Your task to perform on an android device: Show me popular videos on Youtube Image 0: 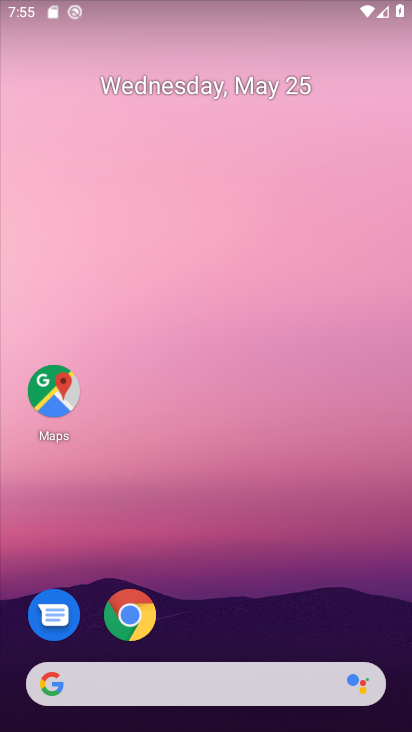
Step 0: drag from (243, 562) to (226, 21)
Your task to perform on an android device: Show me popular videos on Youtube Image 1: 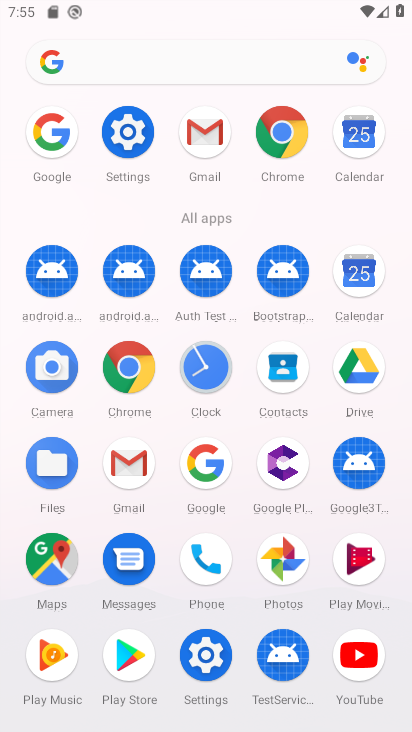
Step 1: click (360, 651)
Your task to perform on an android device: Show me popular videos on Youtube Image 2: 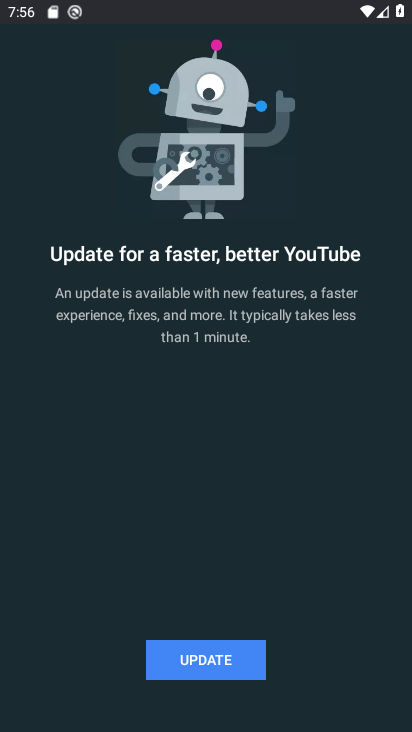
Step 2: click (198, 660)
Your task to perform on an android device: Show me popular videos on Youtube Image 3: 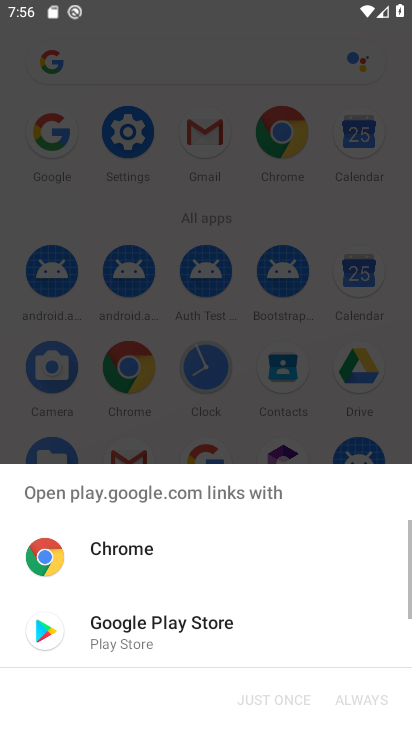
Step 3: click (170, 629)
Your task to perform on an android device: Show me popular videos on Youtube Image 4: 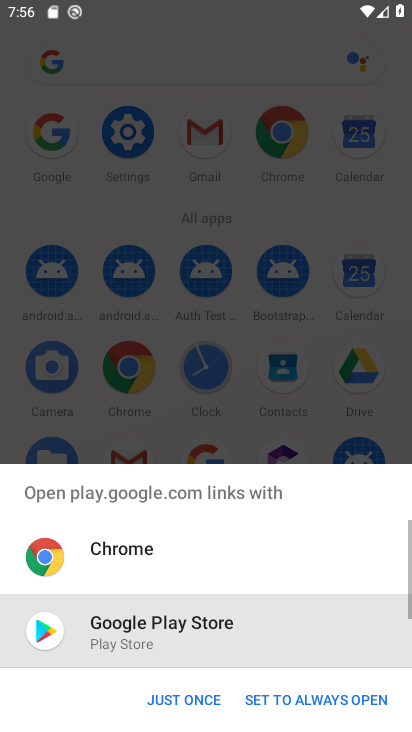
Step 4: click (175, 694)
Your task to perform on an android device: Show me popular videos on Youtube Image 5: 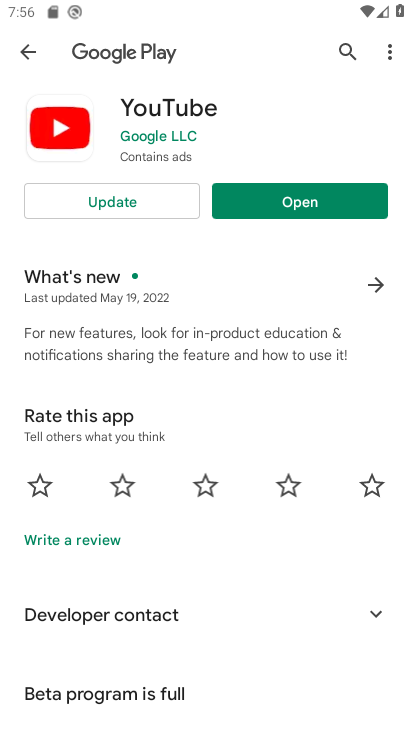
Step 5: click (128, 201)
Your task to perform on an android device: Show me popular videos on Youtube Image 6: 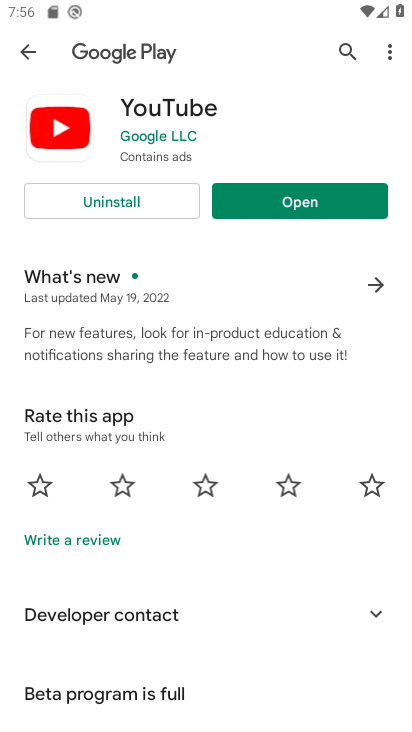
Step 6: click (308, 202)
Your task to perform on an android device: Show me popular videos on Youtube Image 7: 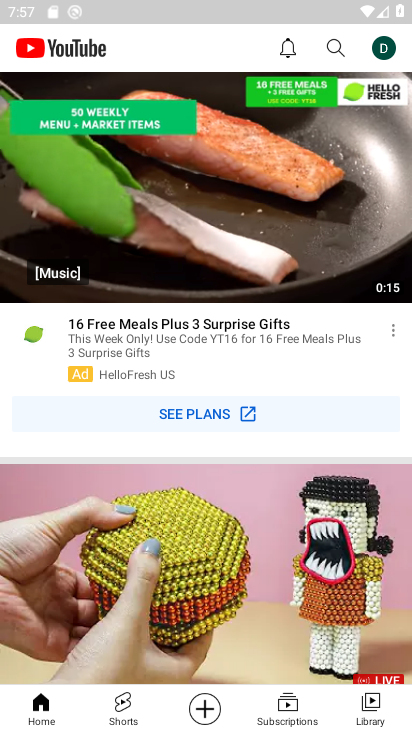
Step 7: drag from (229, 60) to (292, 513)
Your task to perform on an android device: Show me popular videos on Youtube Image 8: 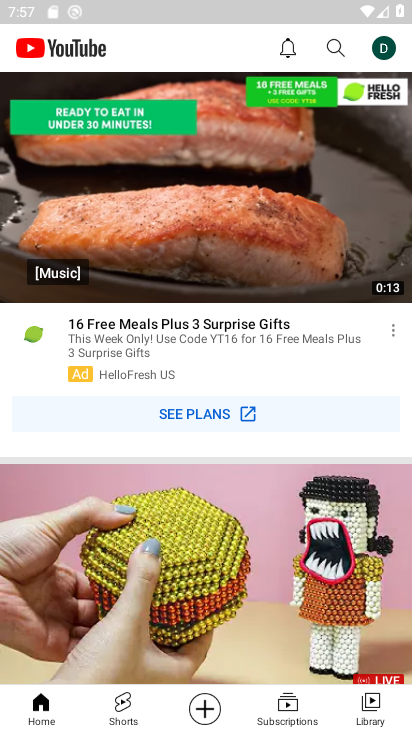
Step 8: drag from (292, 216) to (292, 634)
Your task to perform on an android device: Show me popular videos on Youtube Image 9: 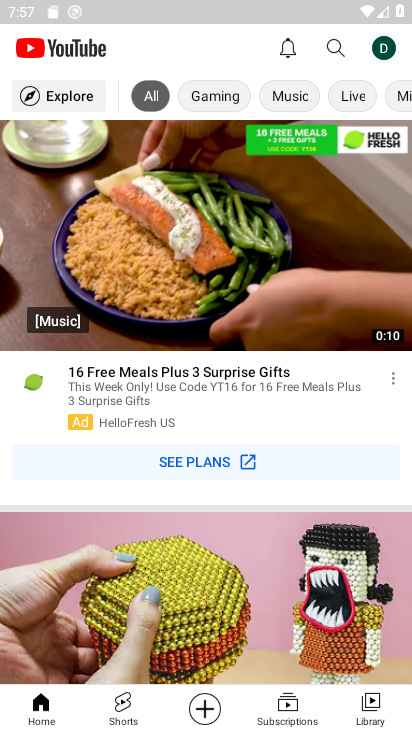
Step 9: click (67, 89)
Your task to perform on an android device: Show me popular videos on Youtube Image 10: 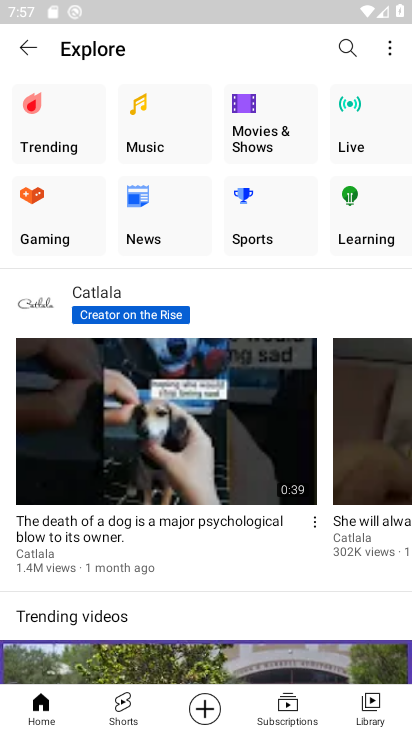
Step 10: click (199, 528)
Your task to perform on an android device: Show me popular videos on Youtube Image 11: 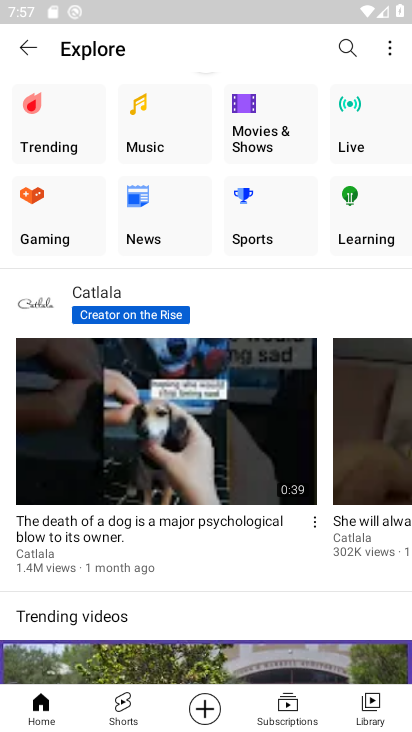
Step 11: click (58, 113)
Your task to perform on an android device: Show me popular videos on Youtube Image 12: 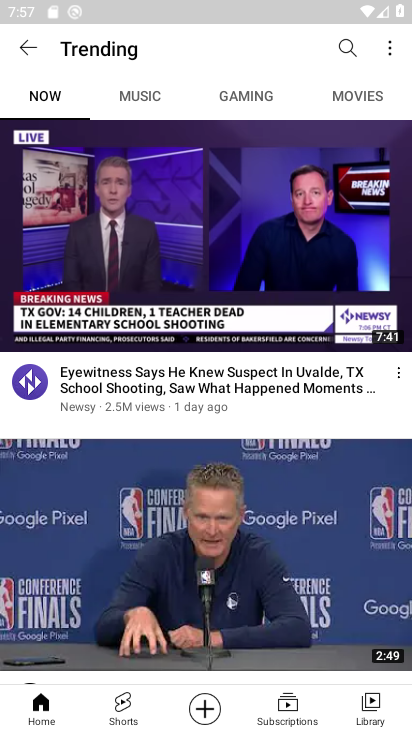
Step 12: task complete